Your task to perform on an android device: Open Chrome and go to the settings page Image 0: 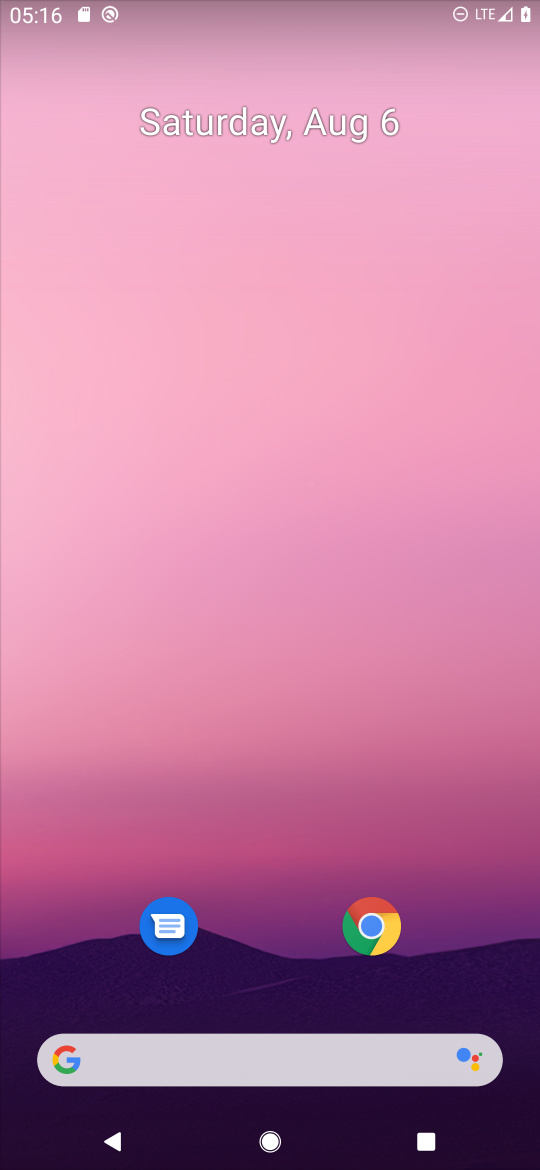
Step 0: press home button
Your task to perform on an android device: Open Chrome and go to the settings page Image 1: 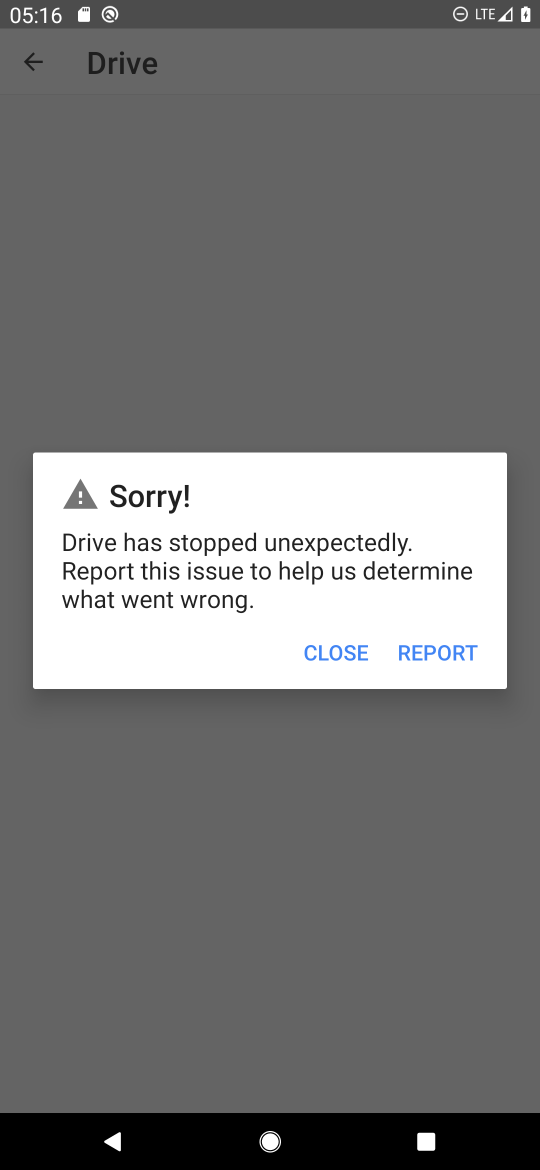
Step 1: drag from (257, 929) to (257, 194)
Your task to perform on an android device: Open Chrome and go to the settings page Image 2: 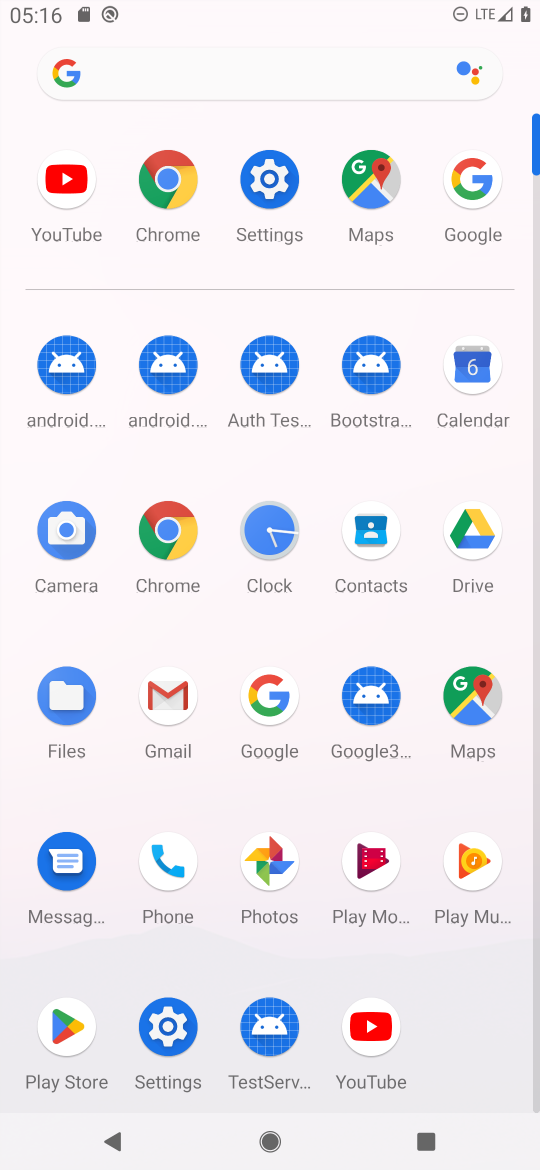
Step 2: press home button
Your task to perform on an android device: Open Chrome and go to the settings page Image 3: 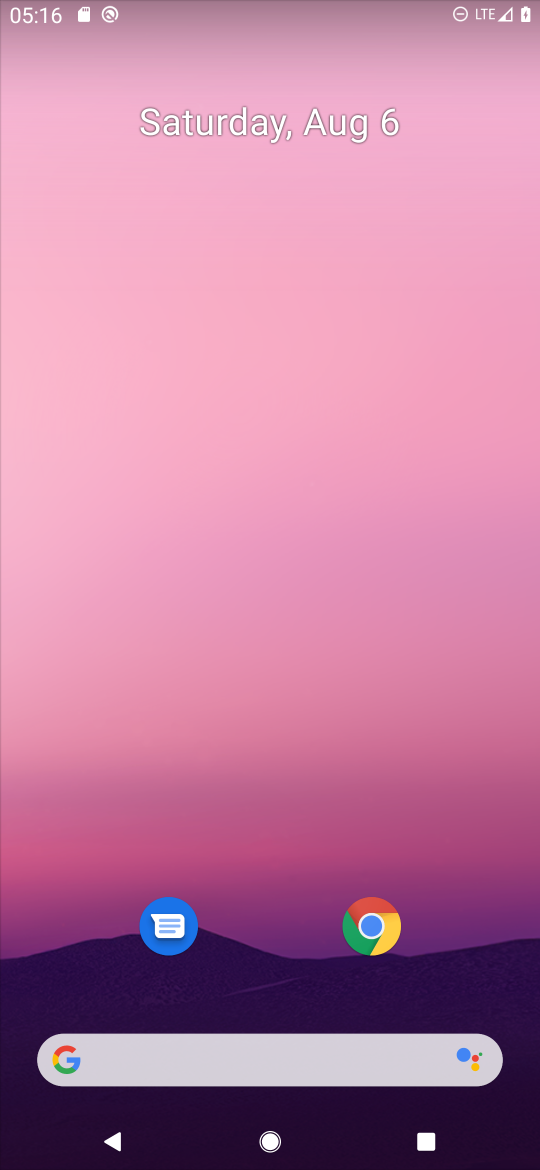
Step 3: click (334, 907)
Your task to perform on an android device: Open Chrome and go to the settings page Image 4: 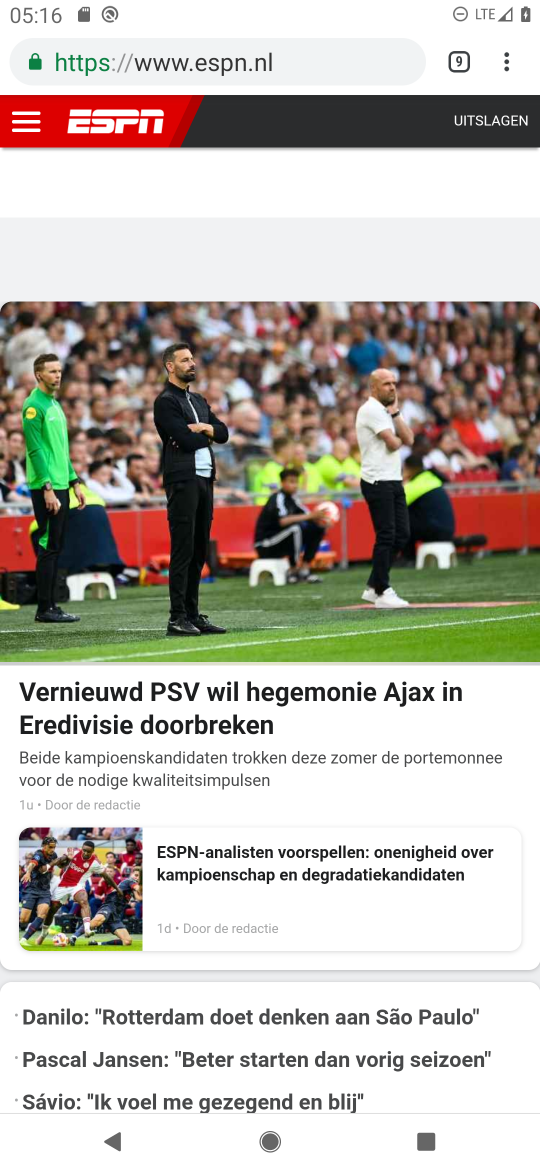
Step 4: click (512, 67)
Your task to perform on an android device: Open Chrome and go to the settings page Image 5: 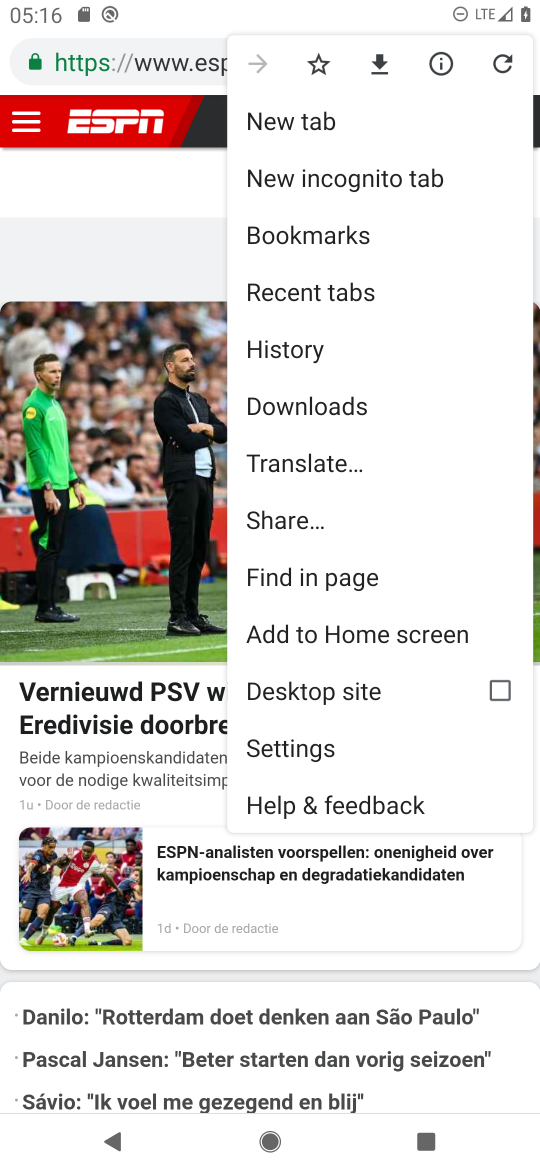
Step 5: click (300, 740)
Your task to perform on an android device: Open Chrome and go to the settings page Image 6: 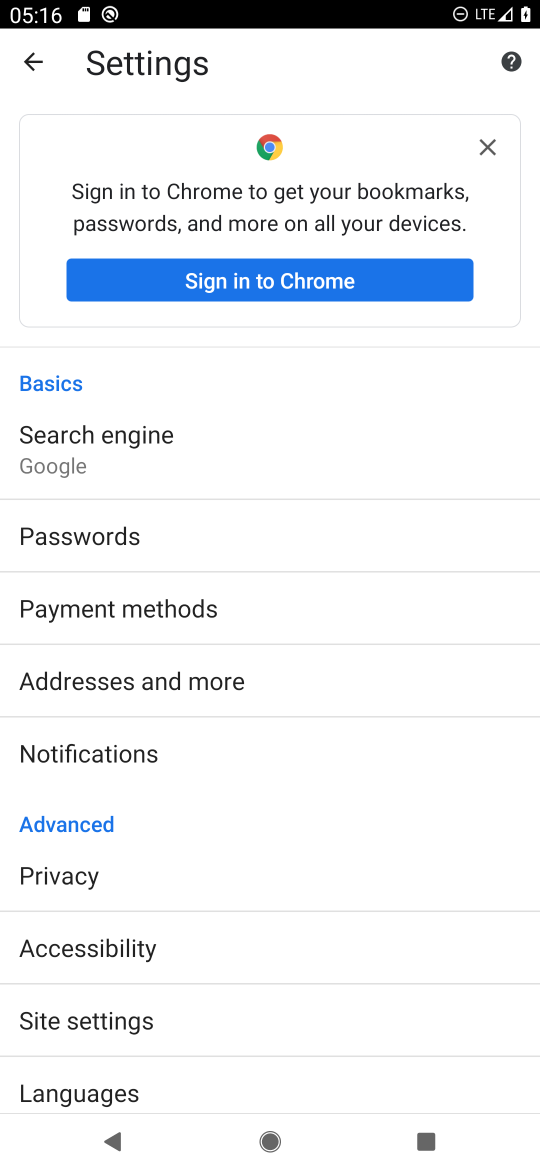
Step 6: task complete